Your task to perform on an android device: Toggle the flashlight Image 0: 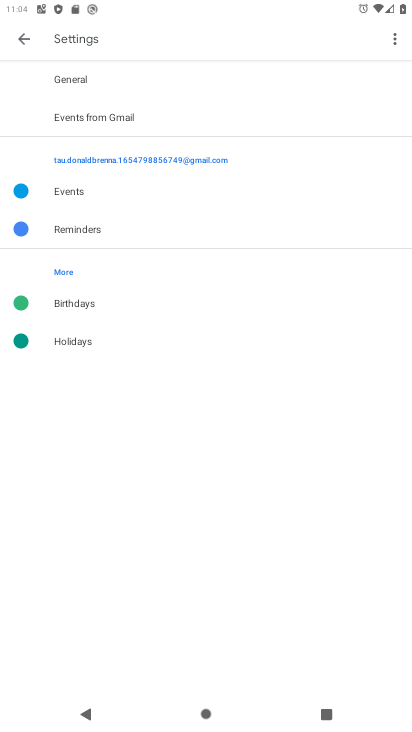
Step 0: press home button
Your task to perform on an android device: Toggle the flashlight Image 1: 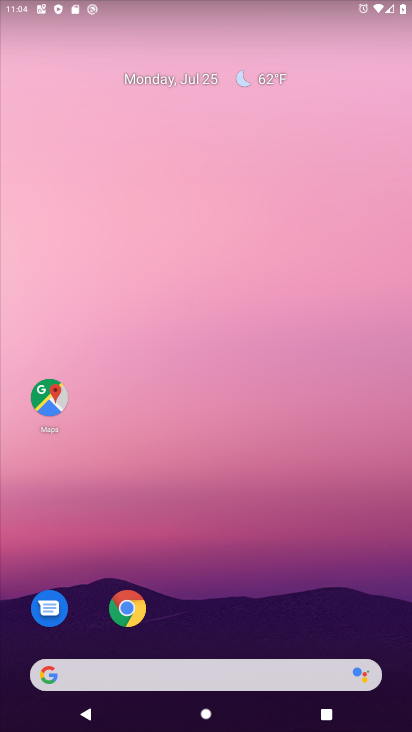
Step 1: drag from (243, 625) to (256, 85)
Your task to perform on an android device: Toggle the flashlight Image 2: 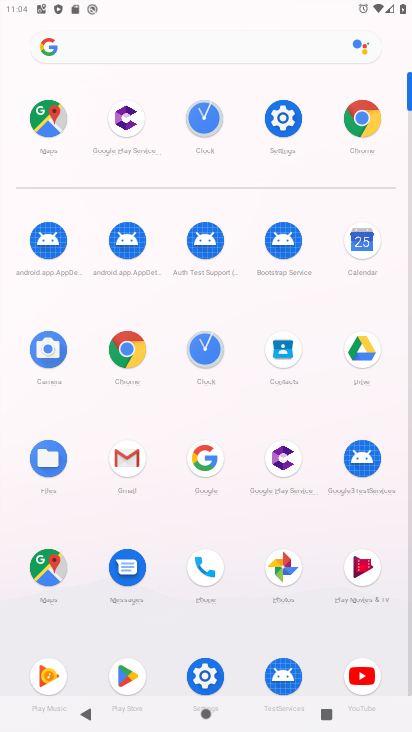
Step 2: click (198, 658)
Your task to perform on an android device: Toggle the flashlight Image 3: 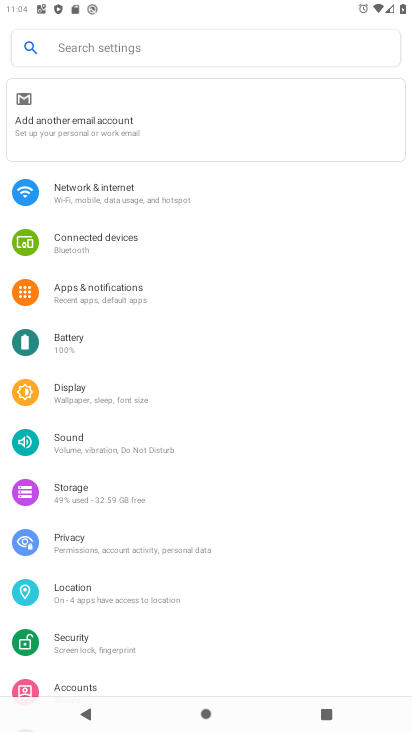
Step 3: click (166, 39)
Your task to perform on an android device: Toggle the flashlight Image 4: 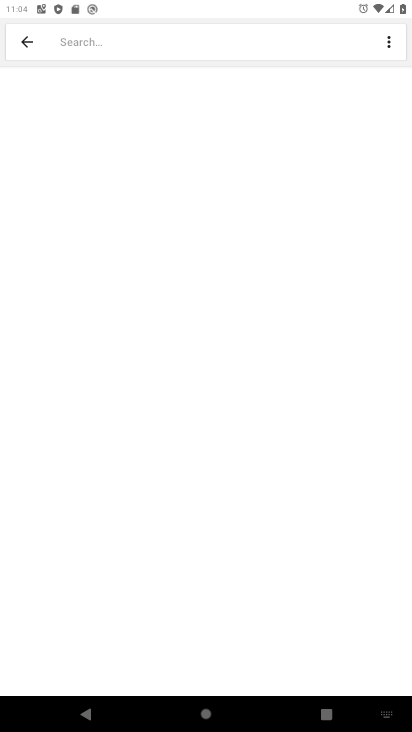
Step 4: type "flashlight"
Your task to perform on an android device: Toggle the flashlight Image 5: 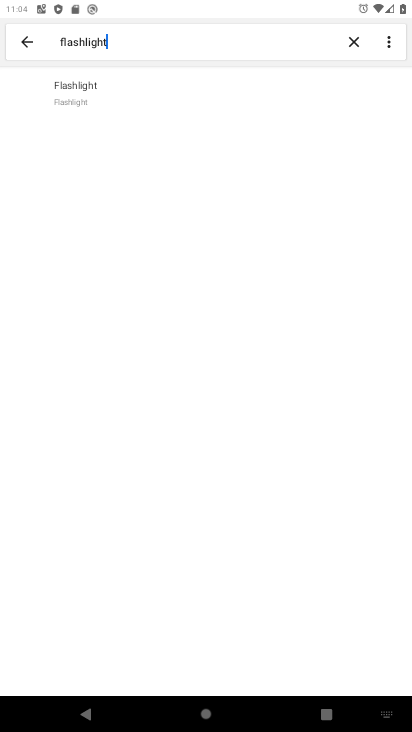
Step 5: click (67, 88)
Your task to perform on an android device: Toggle the flashlight Image 6: 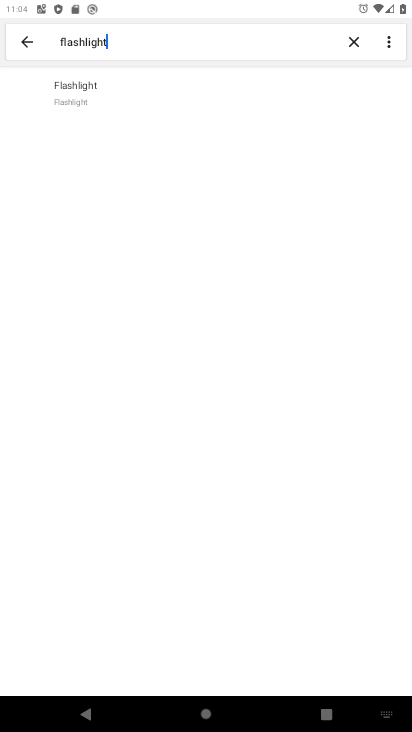
Step 6: click (76, 93)
Your task to perform on an android device: Toggle the flashlight Image 7: 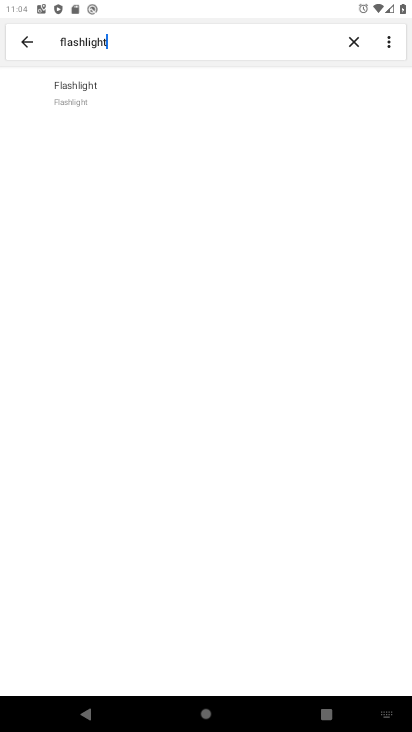
Step 7: click (72, 96)
Your task to perform on an android device: Toggle the flashlight Image 8: 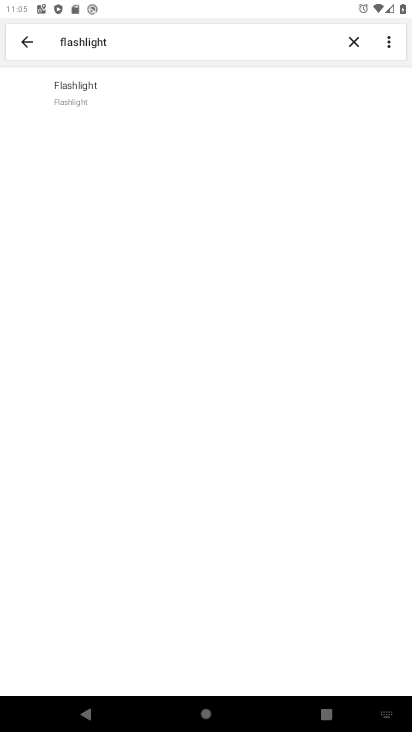
Step 8: task complete